Your task to perform on an android device: Open Google Image 0: 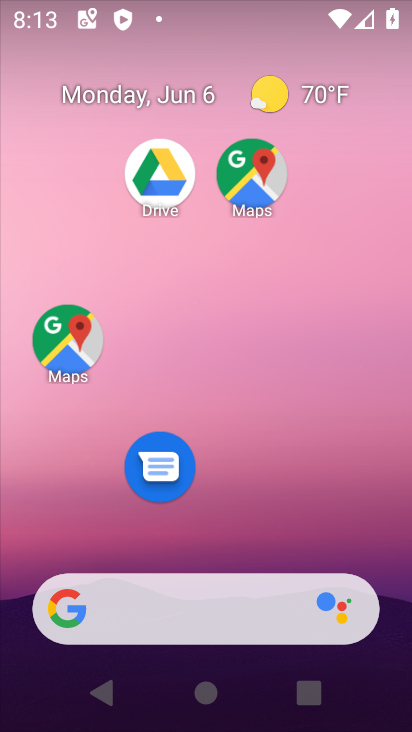
Step 0: drag from (273, 667) to (253, 200)
Your task to perform on an android device: Open Google Image 1: 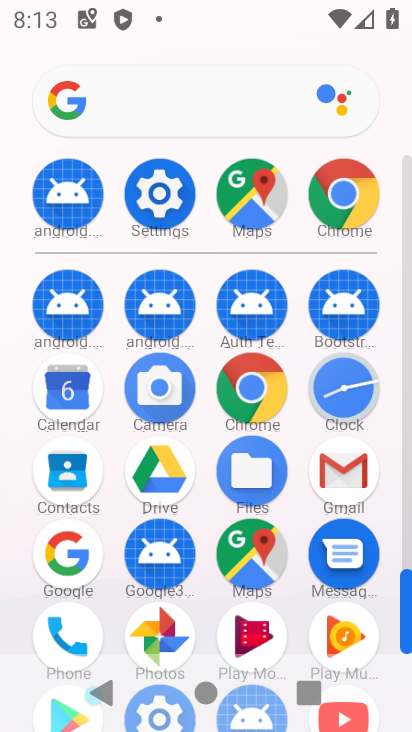
Step 1: click (71, 560)
Your task to perform on an android device: Open Google Image 2: 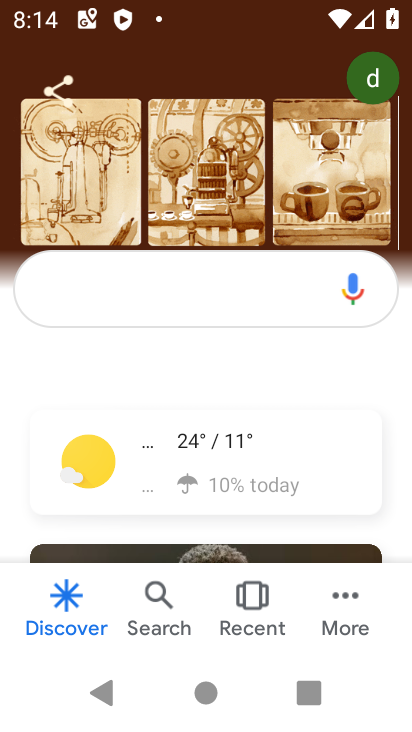
Step 2: click (270, 299)
Your task to perform on an android device: Open Google Image 3: 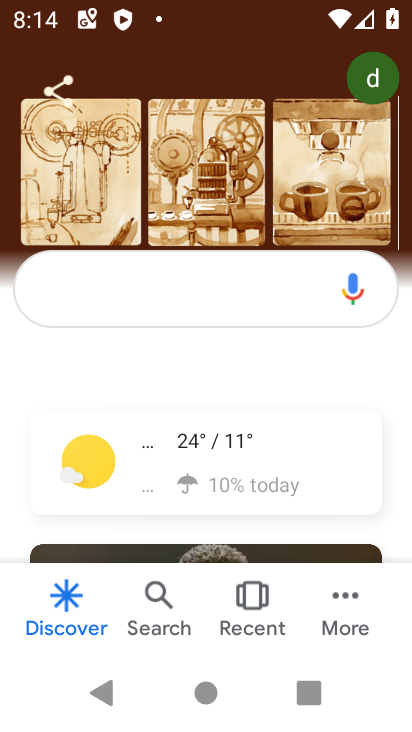
Step 3: task complete